Your task to perform on an android device: turn on the 24-hour format for clock Image 0: 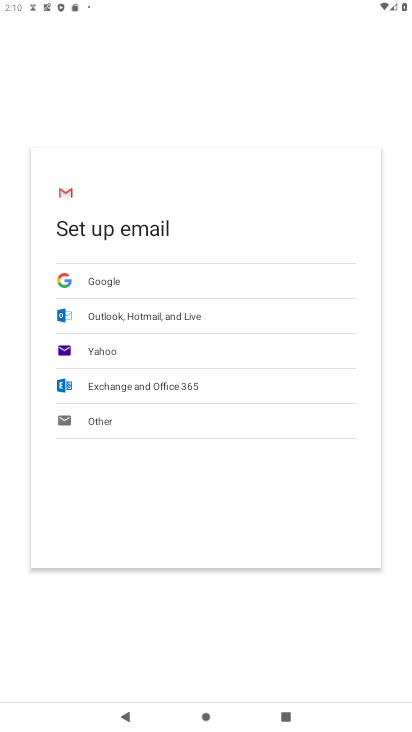
Step 0: press home button
Your task to perform on an android device: turn on the 24-hour format for clock Image 1: 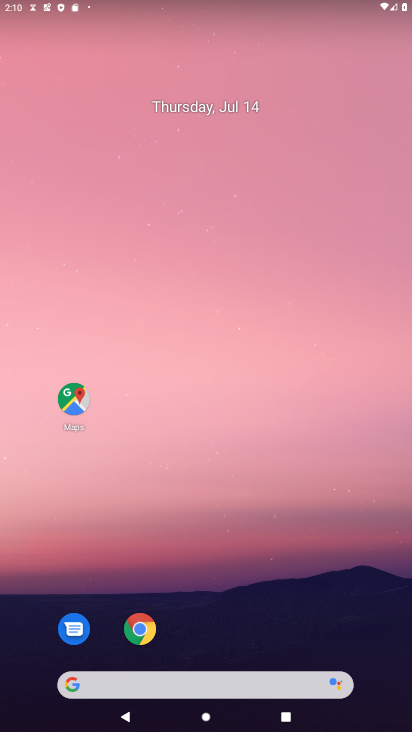
Step 1: drag from (213, 598) to (224, 3)
Your task to perform on an android device: turn on the 24-hour format for clock Image 2: 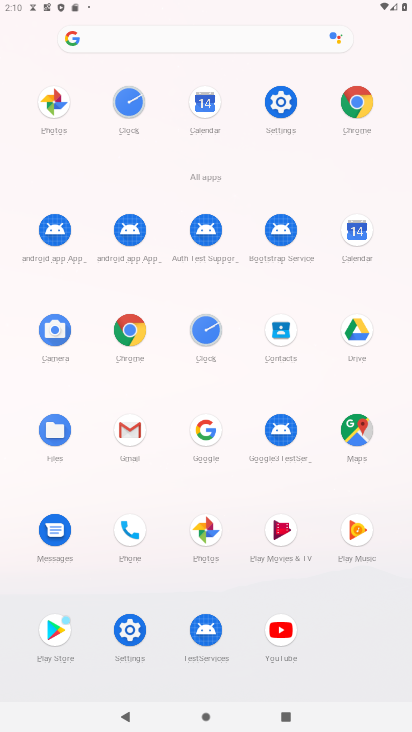
Step 2: click (129, 640)
Your task to perform on an android device: turn on the 24-hour format for clock Image 3: 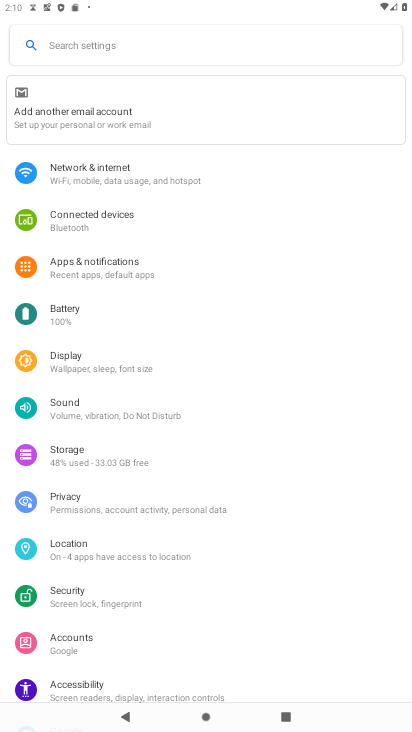
Step 3: drag from (141, 667) to (148, 321)
Your task to perform on an android device: turn on the 24-hour format for clock Image 4: 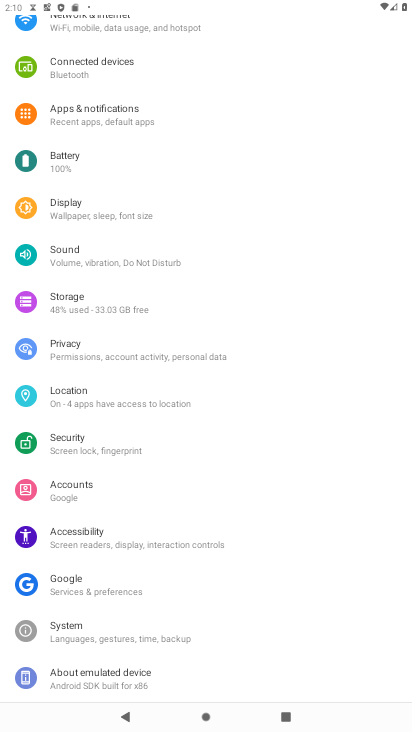
Step 4: click (107, 637)
Your task to perform on an android device: turn on the 24-hour format for clock Image 5: 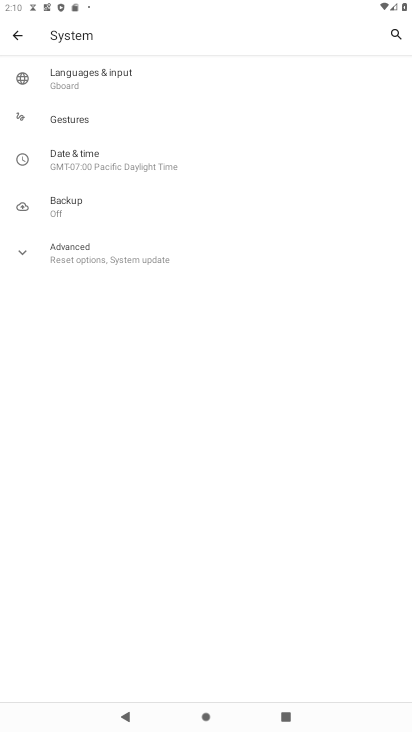
Step 5: click (111, 167)
Your task to perform on an android device: turn on the 24-hour format for clock Image 6: 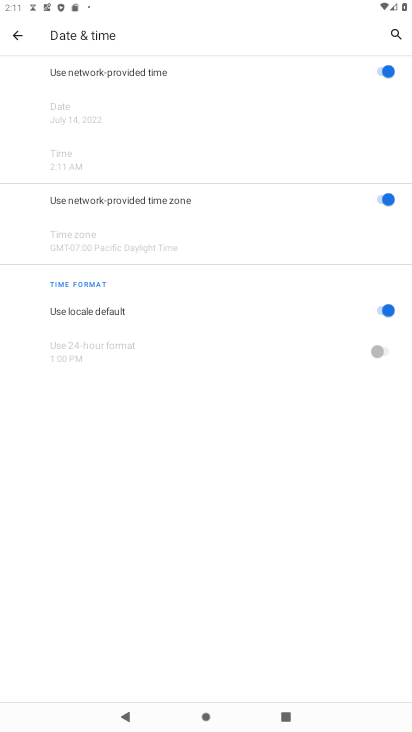
Step 6: click (367, 307)
Your task to perform on an android device: turn on the 24-hour format for clock Image 7: 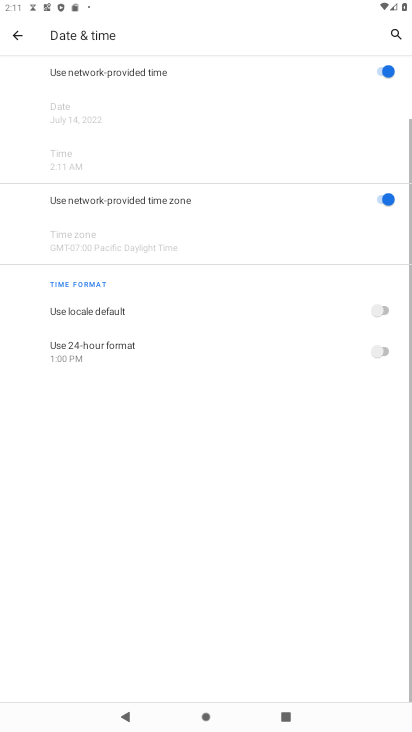
Step 7: click (395, 347)
Your task to perform on an android device: turn on the 24-hour format for clock Image 8: 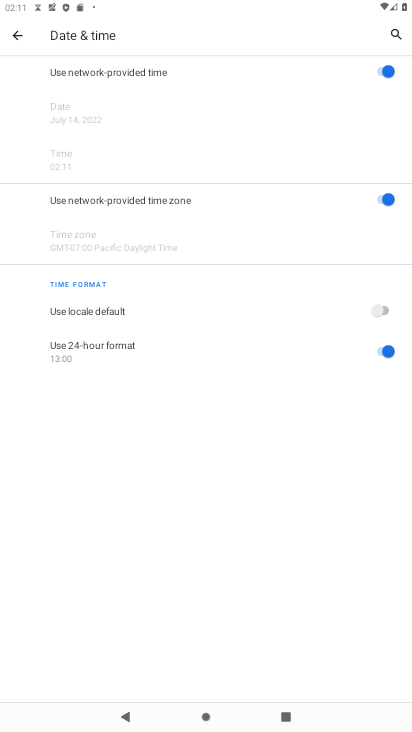
Step 8: task complete